Your task to perform on an android device: Open the Play Movies app and select the watchlist tab. Image 0: 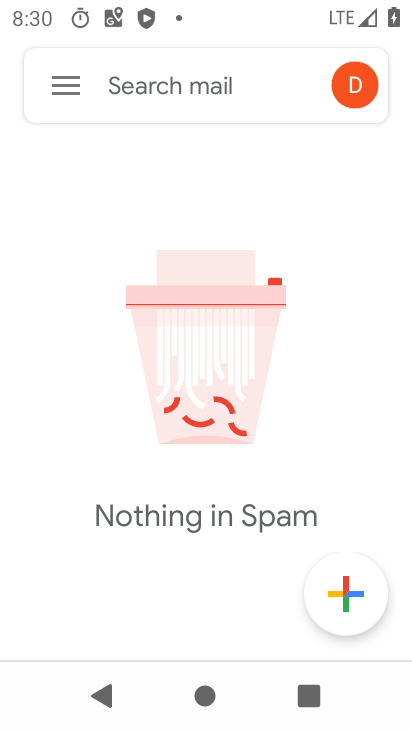
Step 0: drag from (213, 554) to (222, 152)
Your task to perform on an android device: Open the Play Movies app and select the watchlist tab. Image 1: 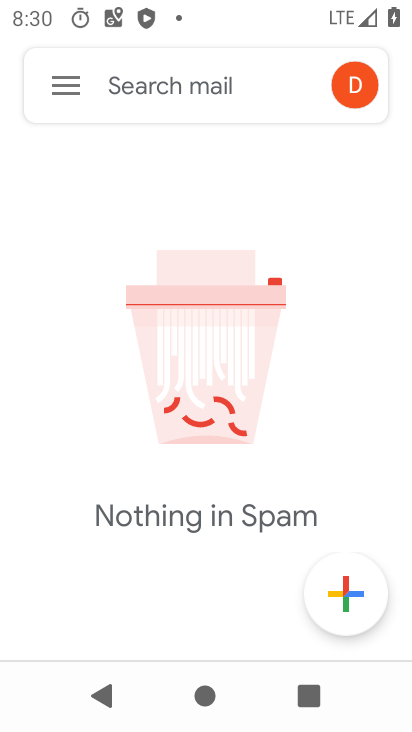
Step 1: press home button
Your task to perform on an android device: Open the Play Movies app and select the watchlist tab. Image 2: 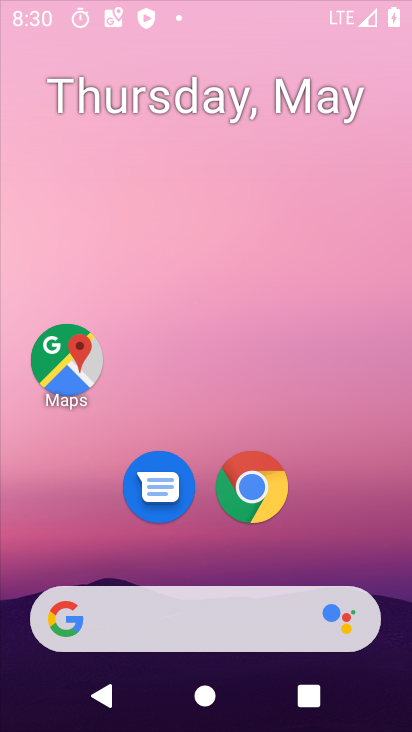
Step 2: drag from (208, 559) to (265, 66)
Your task to perform on an android device: Open the Play Movies app and select the watchlist tab. Image 3: 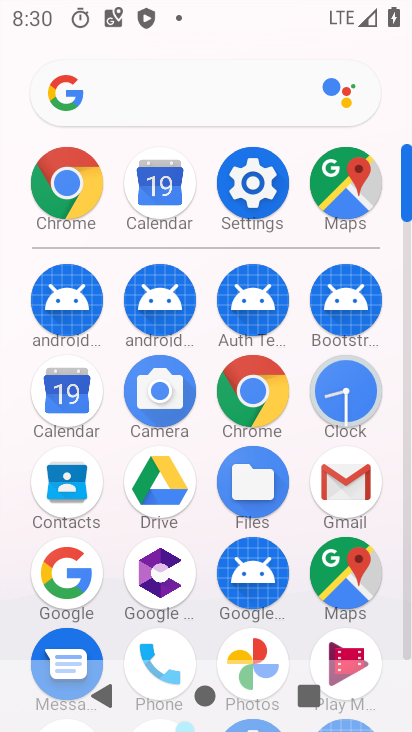
Step 3: click (346, 649)
Your task to perform on an android device: Open the Play Movies app and select the watchlist tab. Image 4: 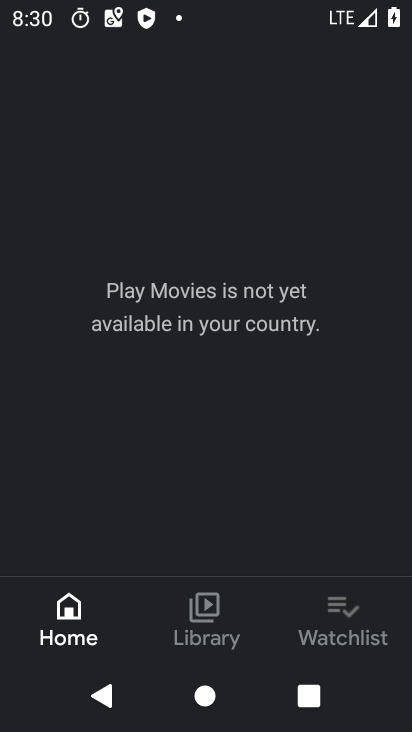
Step 4: click (334, 608)
Your task to perform on an android device: Open the Play Movies app and select the watchlist tab. Image 5: 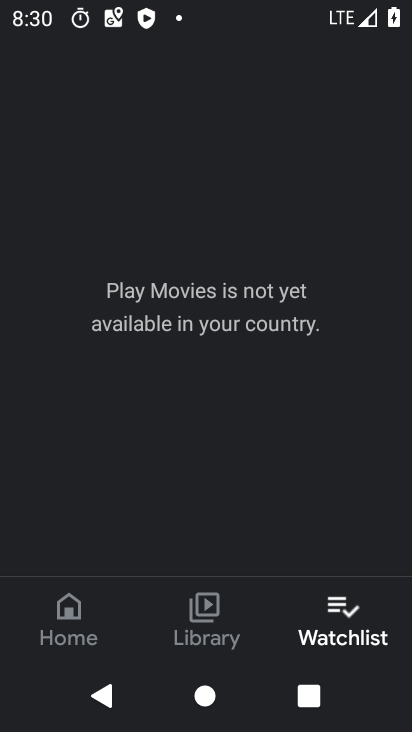
Step 5: drag from (224, 507) to (196, 193)
Your task to perform on an android device: Open the Play Movies app and select the watchlist tab. Image 6: 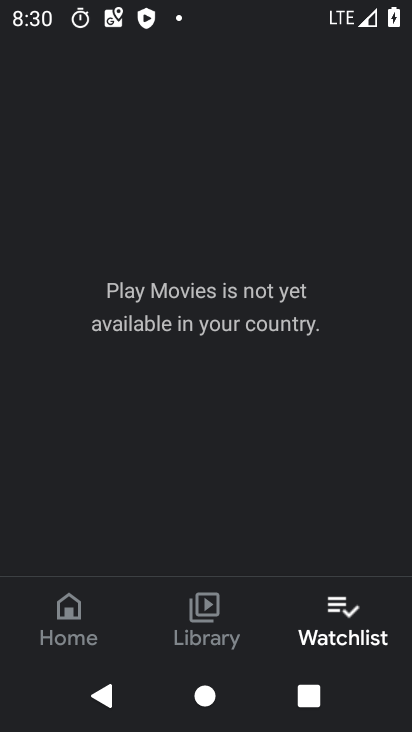
Step 6: drag from (294, 549) to (262, 264)
Your task to perform on an android device: Open the Play Movies app and select the watchlist tab. Image 7: 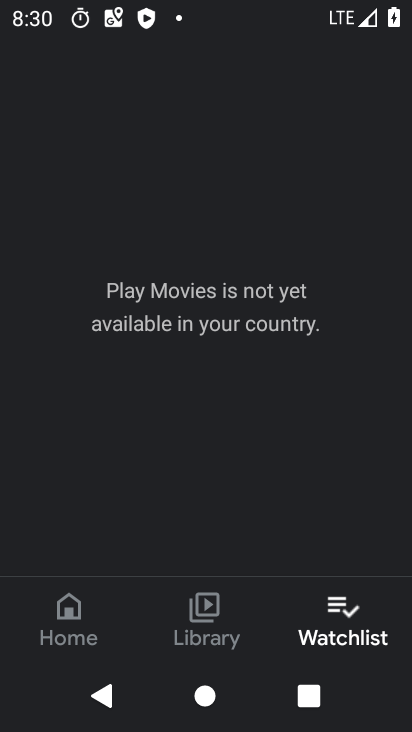
Step 7: click (319, 610)
Your task to perform on an android device: Open the Play Movies app and select the watchlist tab. Image 8: 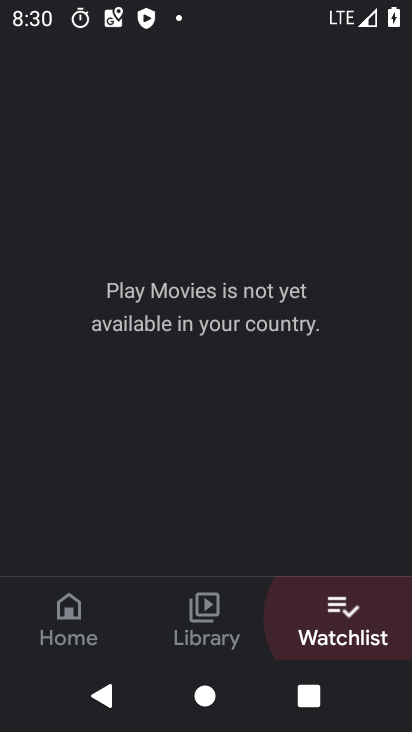
Step 8: task complete